Your task to perform on an android device: When is my next appointment? Image 0: 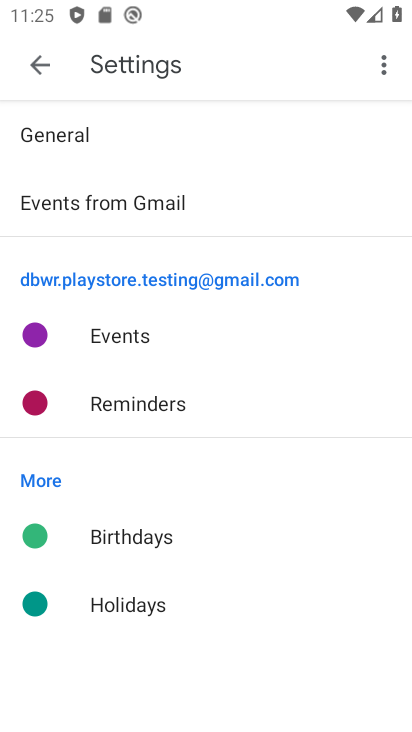
Step 0: press home button
Your task to perform on an android device: When is my next appointment? Image 1: 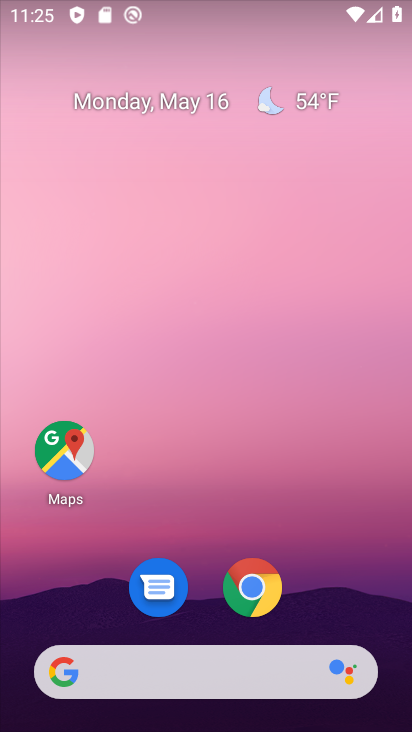
Step 1: drag from (221, 615) to (222, 197)
Your task to perform on an android device: When is my next appointment? Image 2: 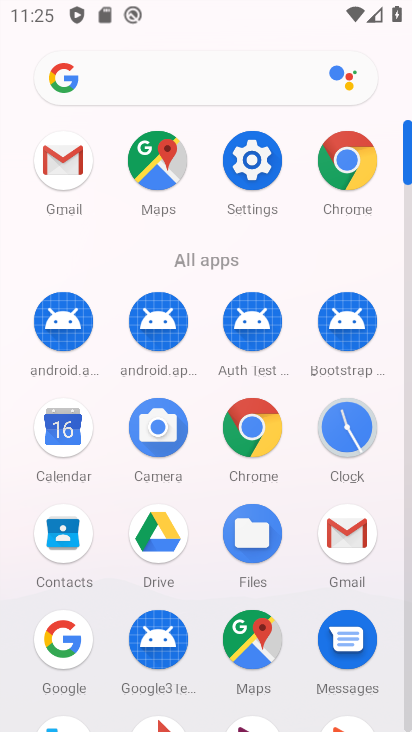
Step 2: click (62, 436)
Your task to perform on an android device: When is my next appointment? Image 3: 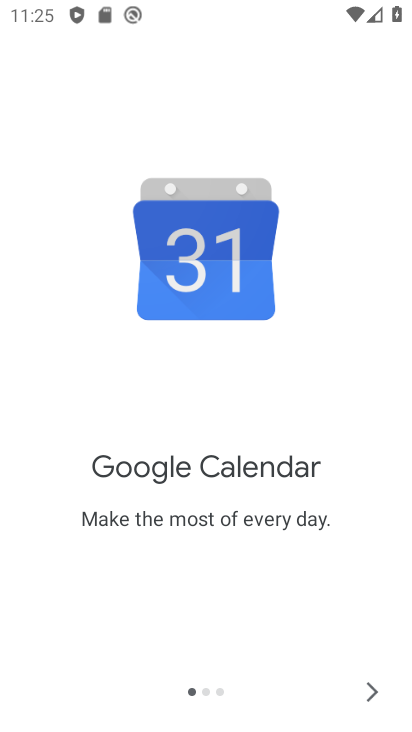
Step 3: click (363, 689)
Your task to perform on an android device: When is my next appointment? Image 4: 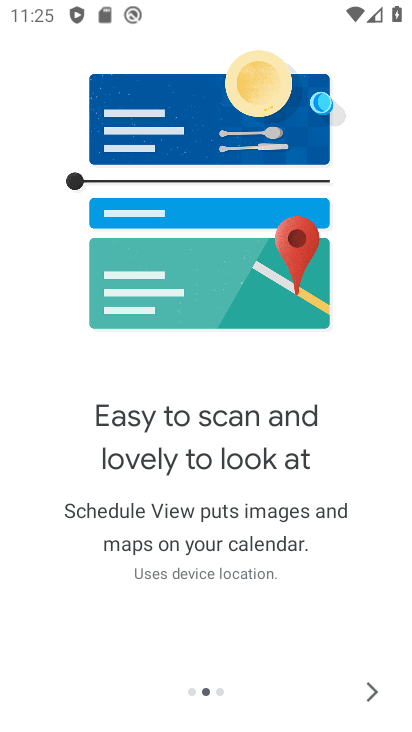
Step 4: click (363, 689)
Your task to perform on an android device: When is my next appointment? Image 5: 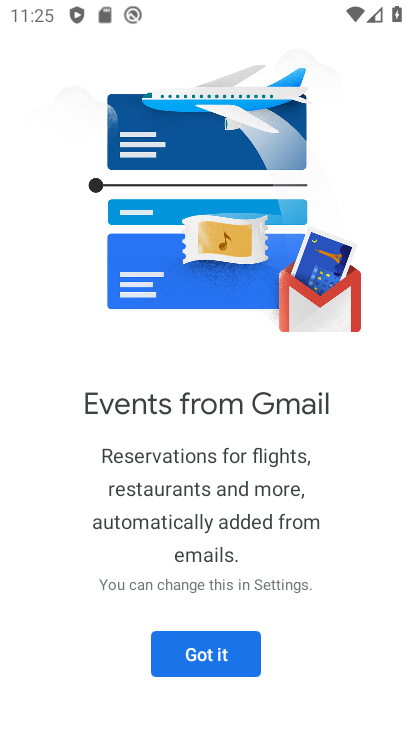
Step 5: click (203, 653)
Your task to perform on an android device: When is my next appointment? Image 6: 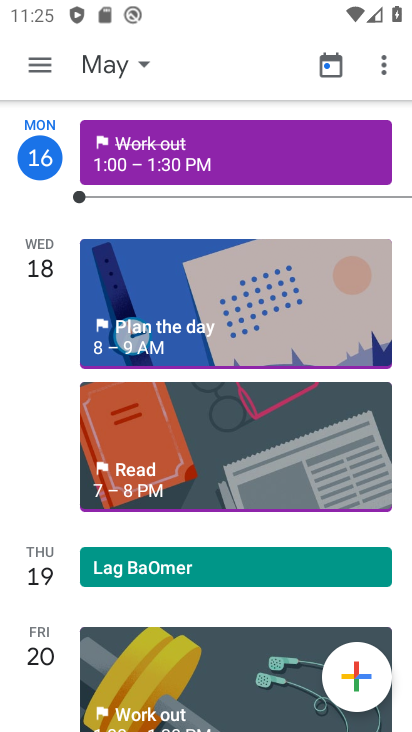
Step 6: task complete